Your task to perform on an android device: Search for vegetarian restaurants on Maps Image 0: 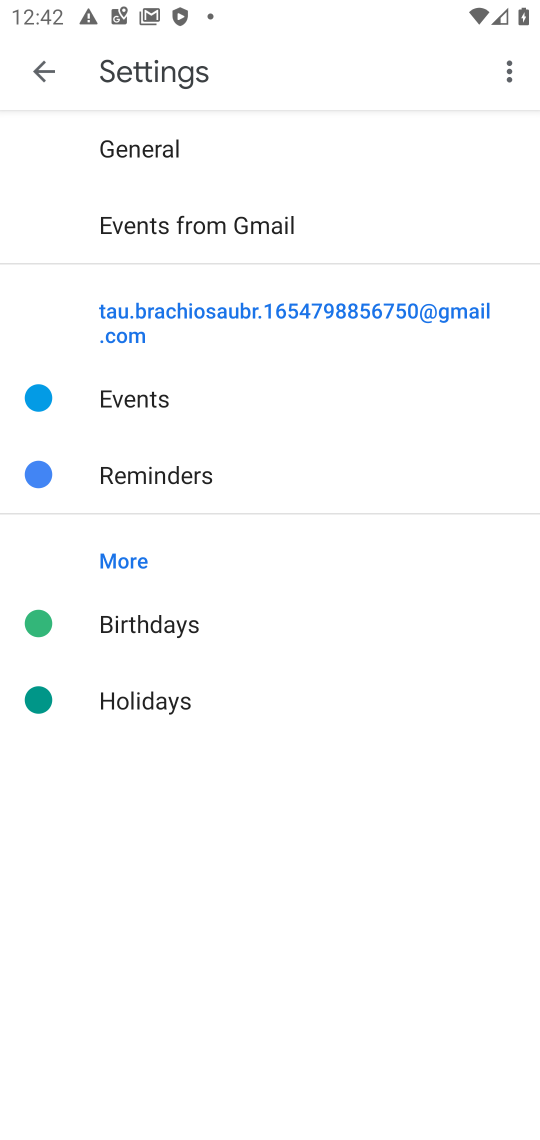
Step 0: press home button
Your task to perform on an android device: Search for vegetarian restaurants on Maps Image 1: 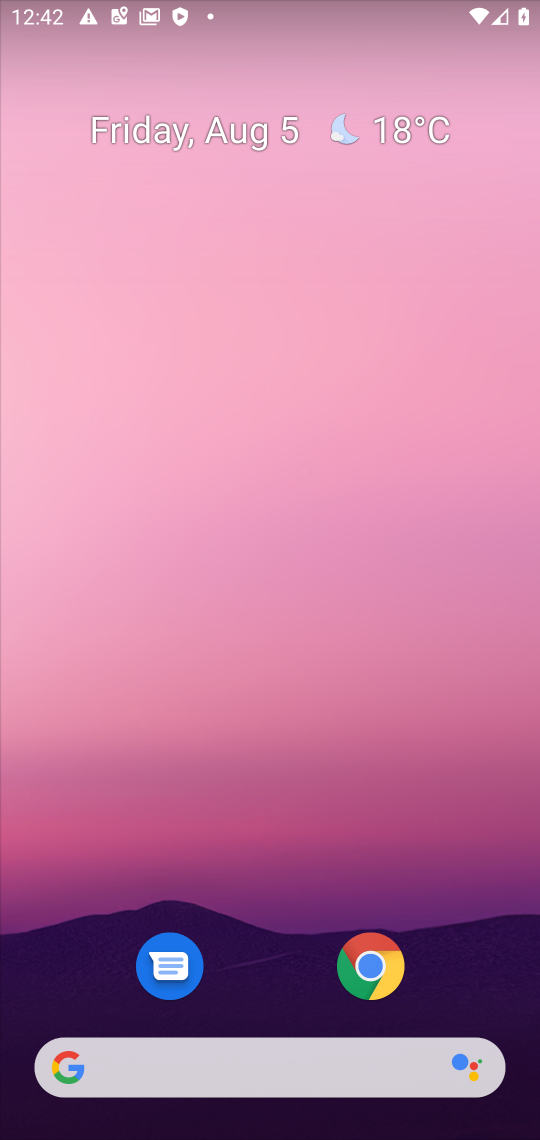
Step 1: drag from (310, 811) to (413, 6)
Your task to perform on an android device: Search for vegetarian restaurants on Maps Image 2: 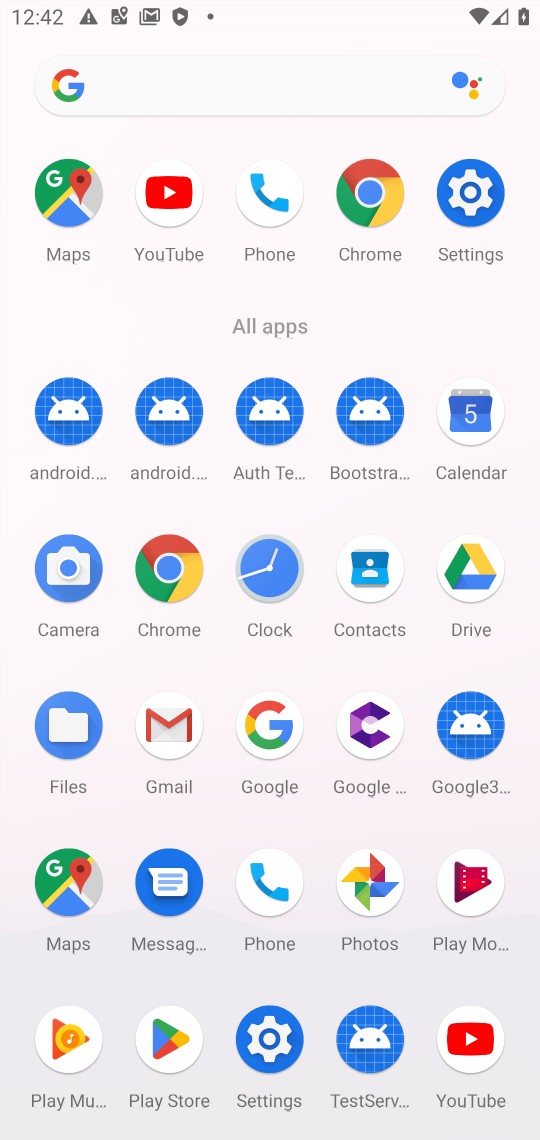
Step 2: click (60, 198)
Your task to perform on an android device: Search for vegetarian restaurants on Maps Image 3: 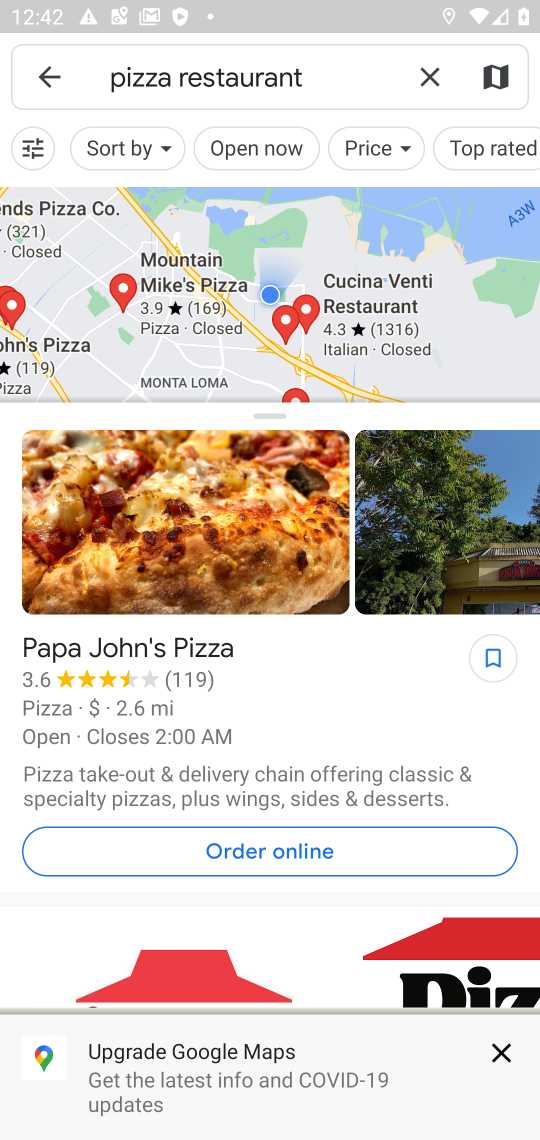
Step 3: click (432, 71)
Your task to perform on an android device: Search for vegetarian restaurants on Maps Image 4: 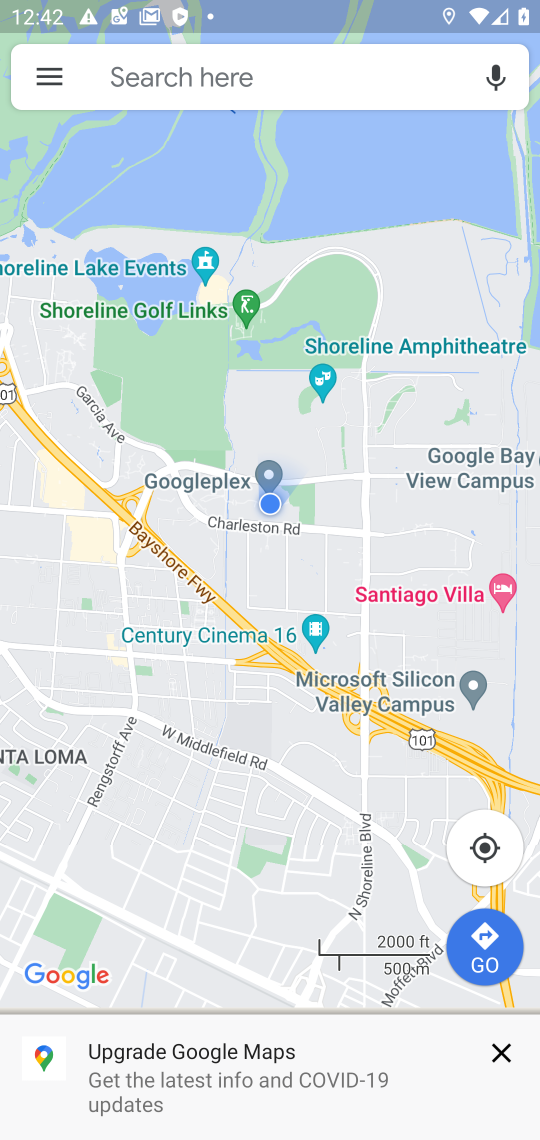
Step 4: click (287, 70)
Your task to perform on an android device: Search for vegetarian restaurants on Maps Image 5: 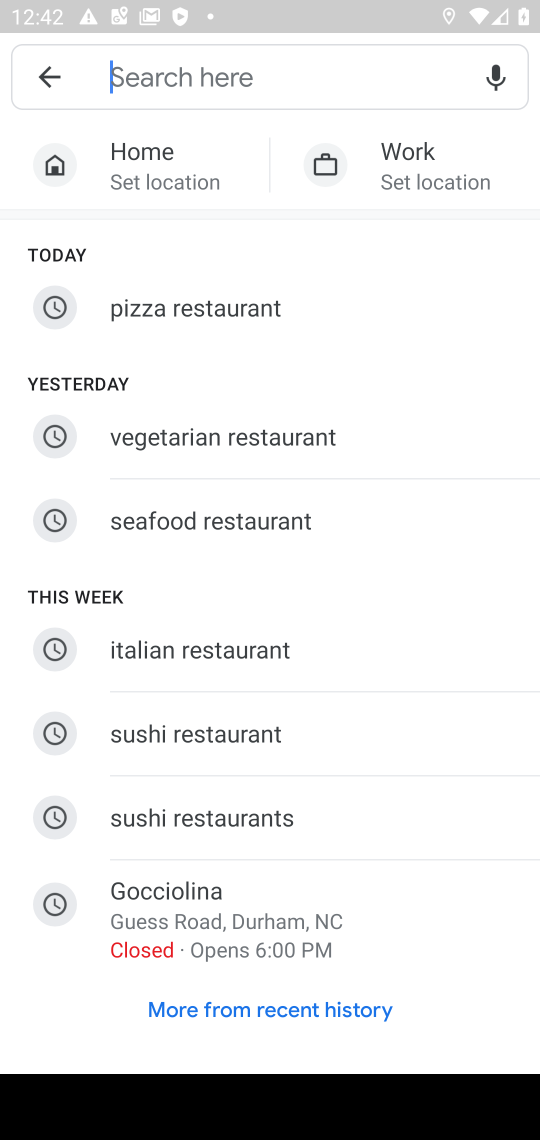
Step 5: click (246, 431)
Your task to perform on an android device: Search for vegetarian restaurants on Maps Image 6: 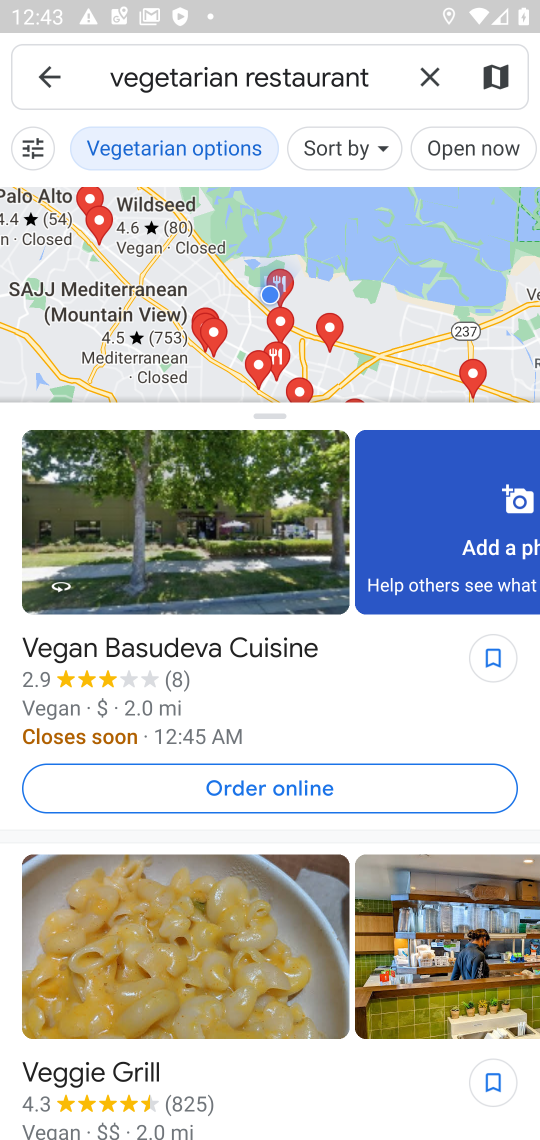
Step 6: task complete